Your task to perform on an android device: open a new tab in the chrome app Image 0: 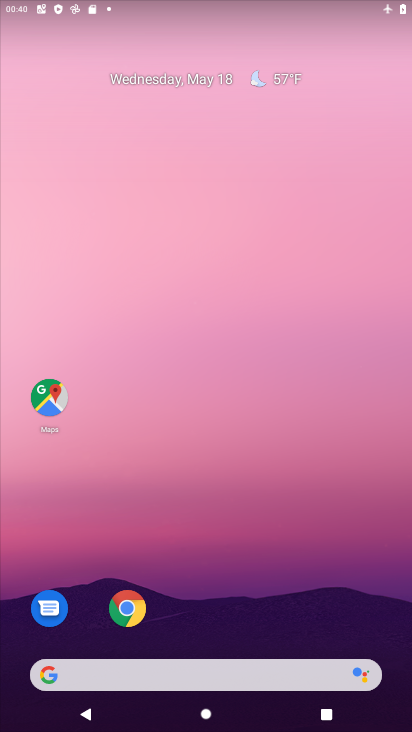
Step 0: click (129, 608)
Your task to perform on an android device: open a new tab in the chrome app Image 1: 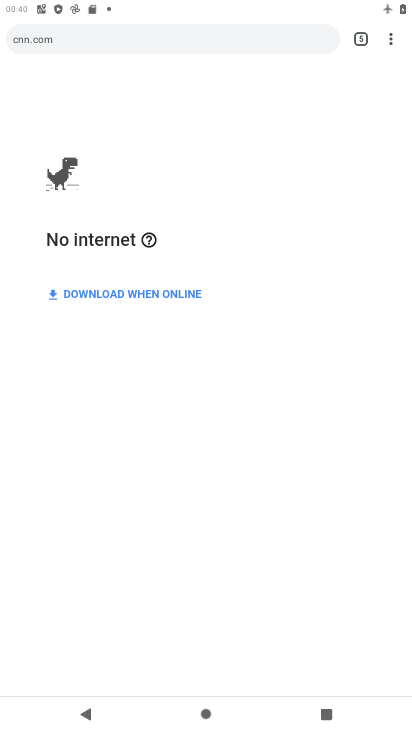
Step 1: click (390, 38)
Your task to perform on an android device: open a new tab in the chrome app Image 2: 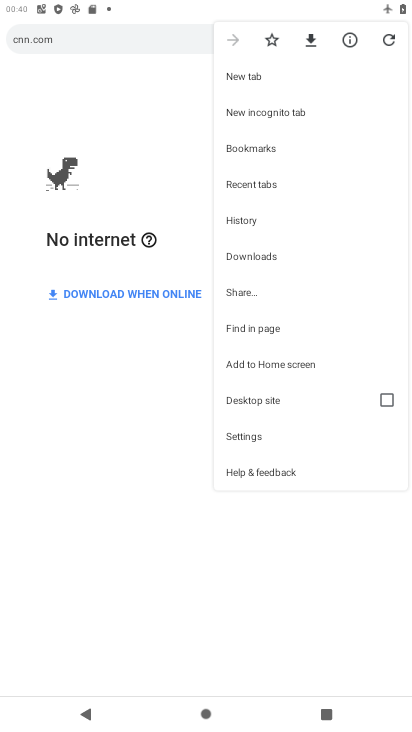
Step 2: click (245, 84)
Your task to perform on an android device: open a new tab in the chrome app Image 3: 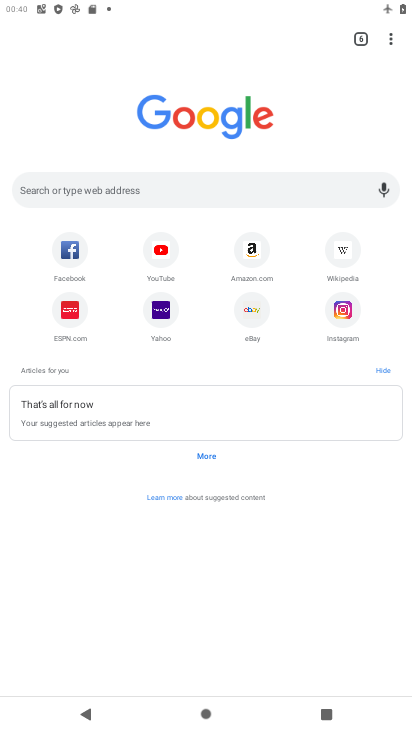
Step 3: task complete